Your task to perform on an android device: Turn on the flashlight Image 0: 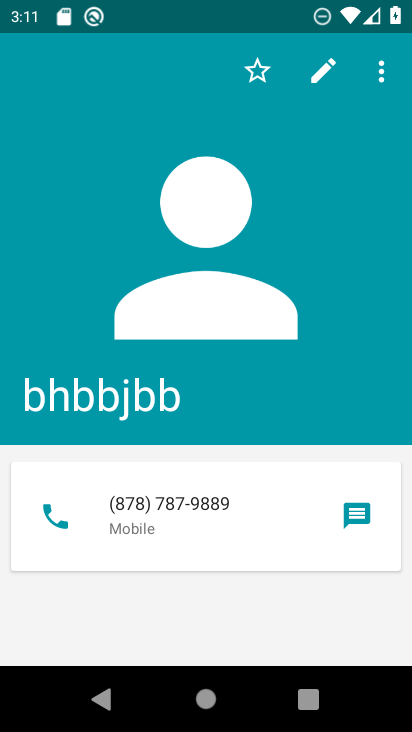
Step 0: press home button
Your task to perform on an android device: Turn on the flashlight Image 1: 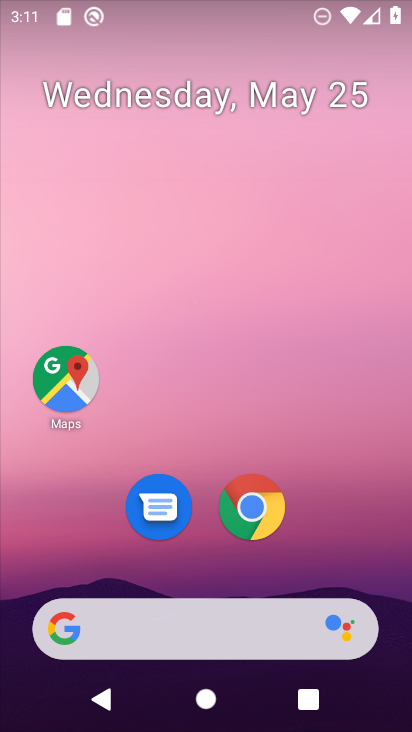
Step 1: task complete